Your task to perform on an android device: Open Google Maps Image 0: 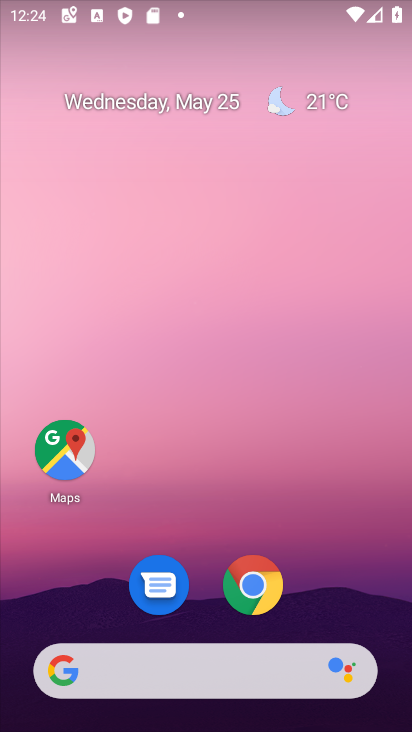
Step 0: click (54, 452)
Your task to perform on an android device: Open Google Maps Image 1: 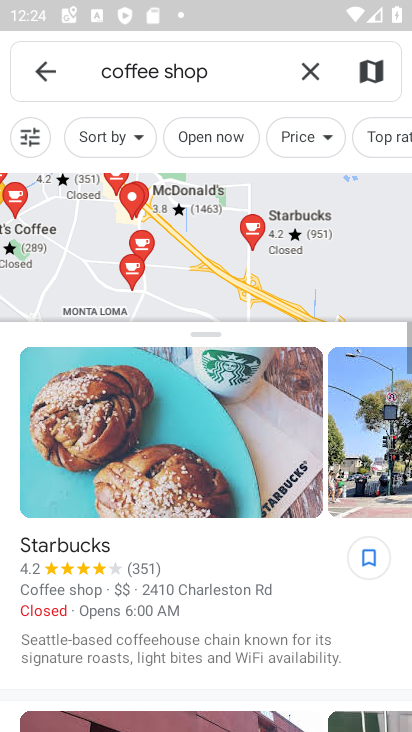
Step 1: click (306, 58)
Your task to perform on an android device: Open Google Maps Image 2: 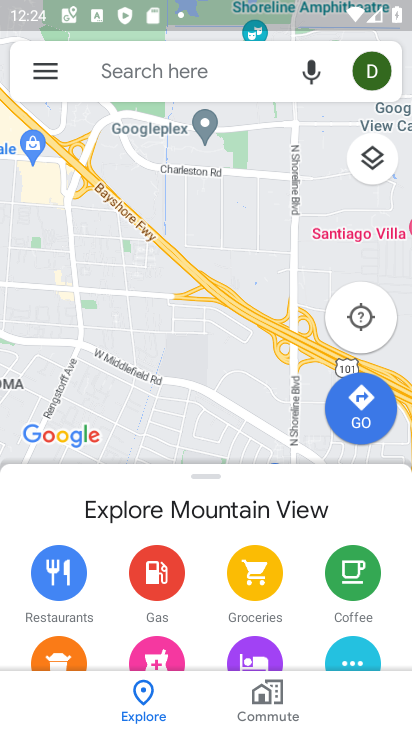
Step 2: task complete